Your task to perform on an android device: Open accessibility settings Image 0: 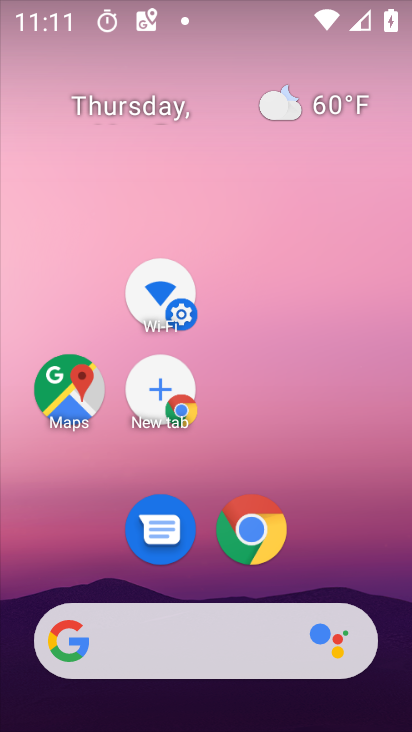
Step 0: drag from (374, 581) to (80, 11)
Your task to perform on an android device: Open accessibility settings Image 1: 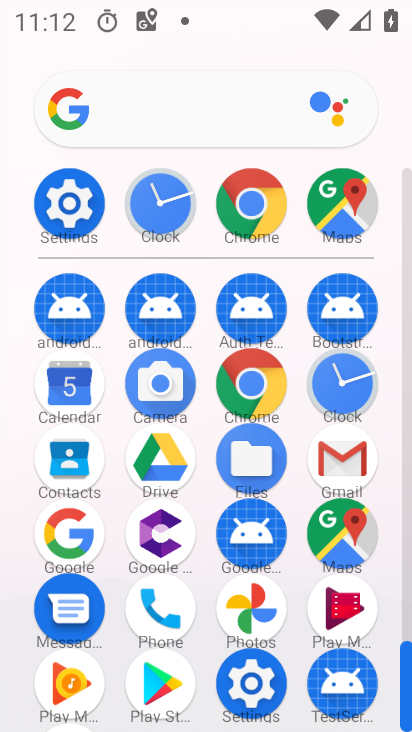
Step 1: click (79, 203)
Your task to perform on an android device: Open accessibility settings Image 2: 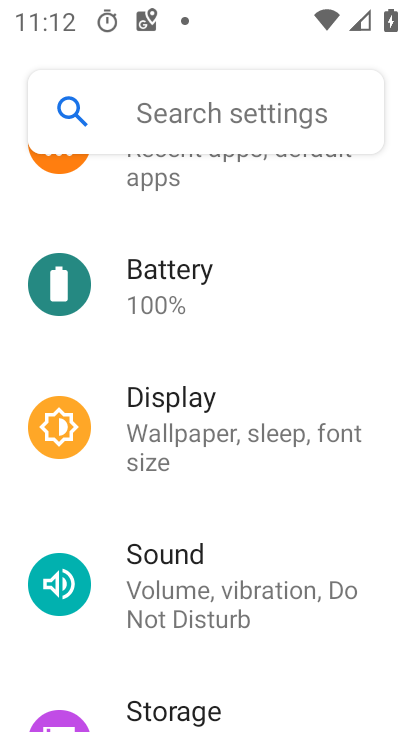
Step 2: drag from (231, 567) to (155, 271)
Your task to perform on an android device: Open accessibility settings Image 3: 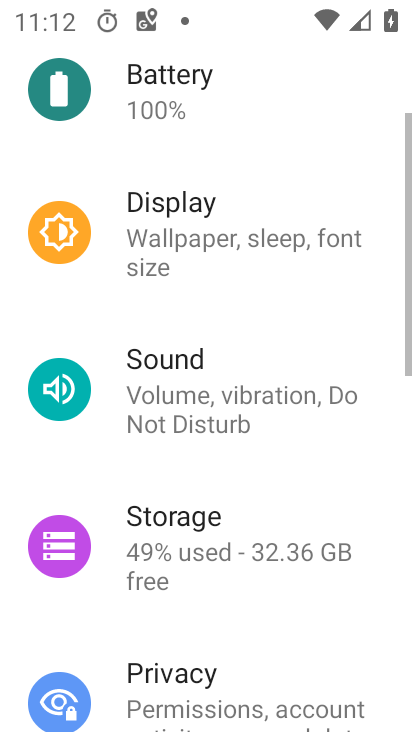
Step 3: drag from (224, 535) to (185, 313)
Your task to perform on an android device: Open accessibility settings Image 4: 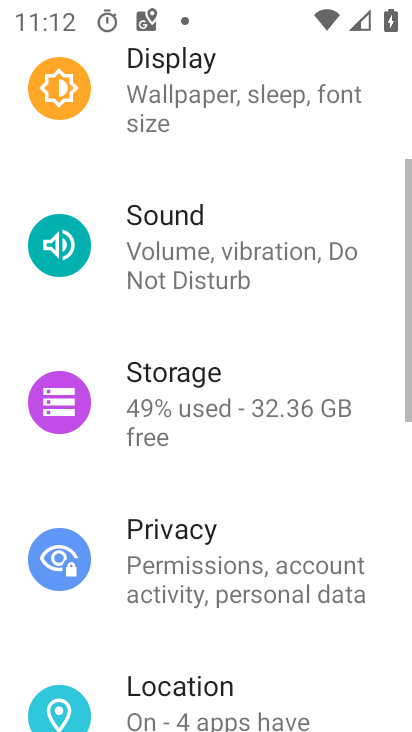
Step 4: drag from (284, 630) to (305, 233)
Your task to perform on an android device: Open accessibility settings Image 5: 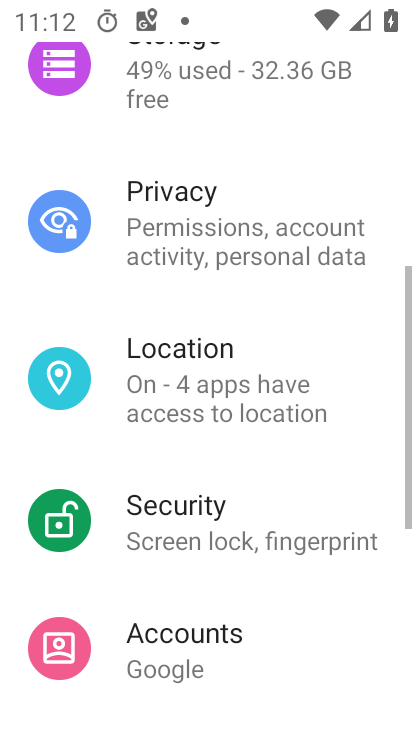
Step 5: drag from (341, 616) to (292, 214)
Your task to perform on an android device: Open accessibility settings Image 6: 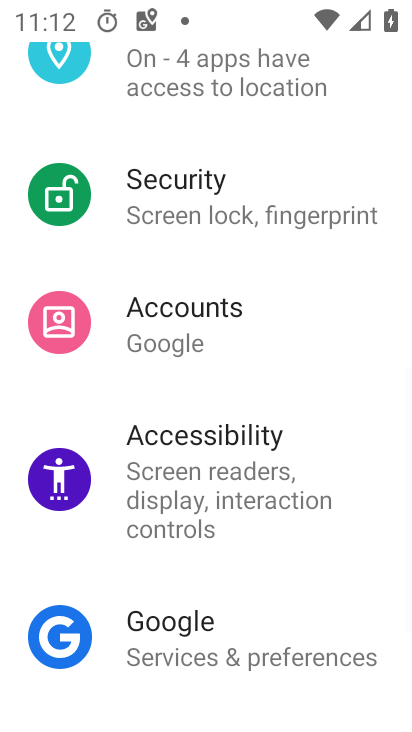
Step 6: drag from (269, 638) to (241, 204)
Your task to perform on an android device: Open accessibility settings Image 7: 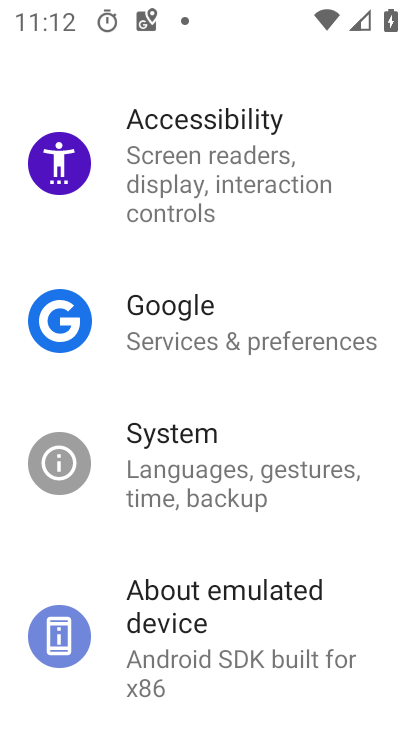
Step 7: click (180, 160)
Your task to perform on an android device: Open accessibility settings Image 8: 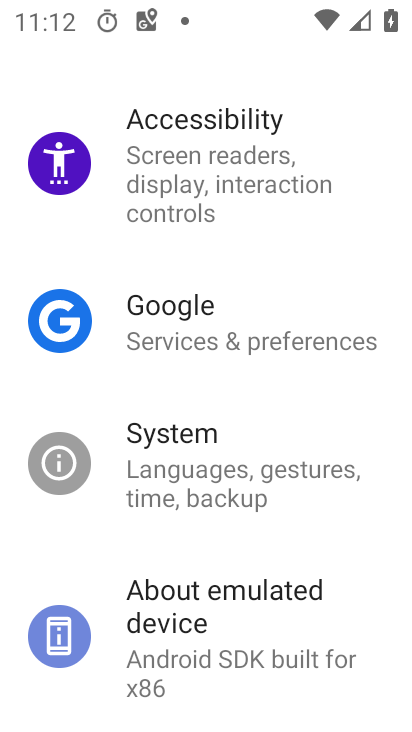
Step 8: click (180, 160)
Your task to perform on an android device: Open accessibility settings Image 9: 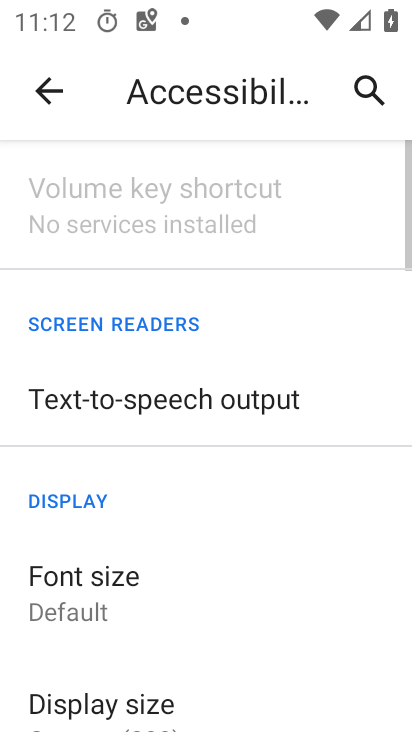
Step 9: task complete